Your task to perform on an android device: Go to Reddit.com Image 0: 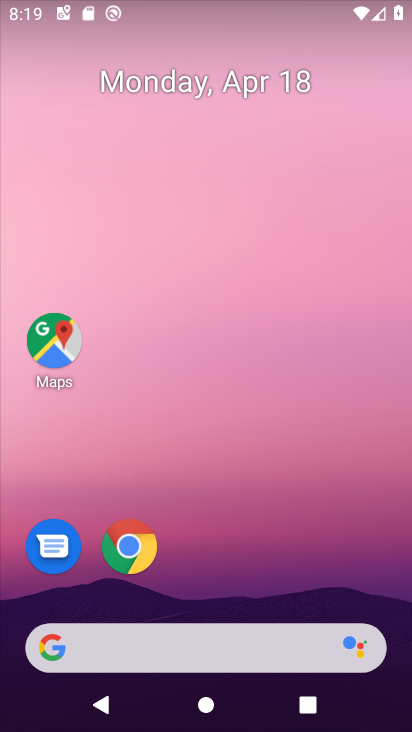
Step 0: drag from (347, 583) to (200, 142)
Your task to perform on an android device: Go to Reddit.com Image 1: 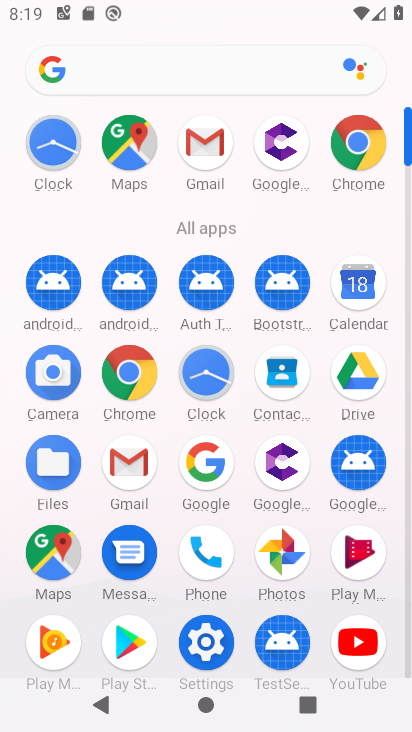
Step 1: click (364, 157)
Your task to perform on an android device: Go to Reddit.com Image 2: 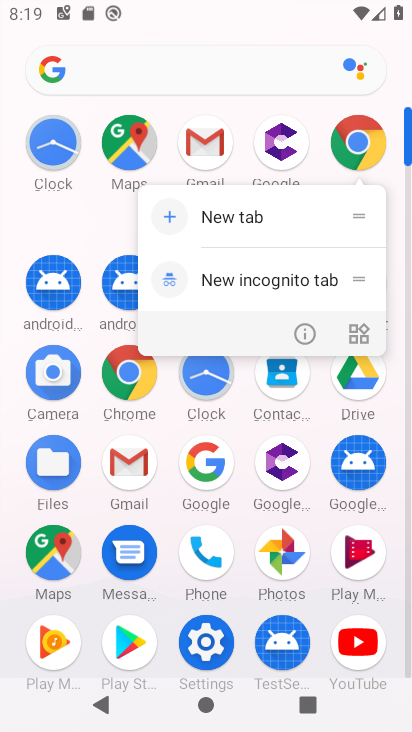
Step 2: click (364, 157)
Your task to perform on an android device: Go to Reddit.com Image 3: 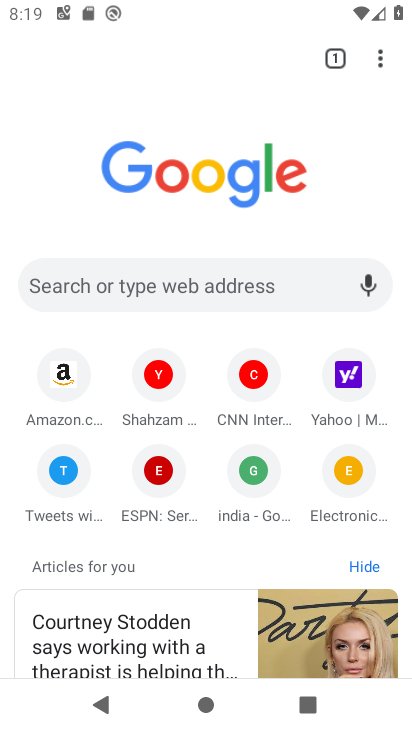
Step 3: click (250, 278)
Your task to perform on an android device: Go to Reddit.com Image 4: 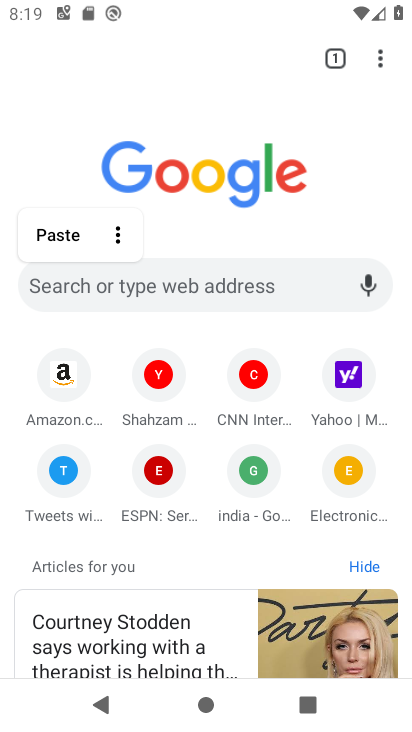
Step 4: type "Reddit.com"
Your task to perform on an android device: Go to Reddit.com Image 5: 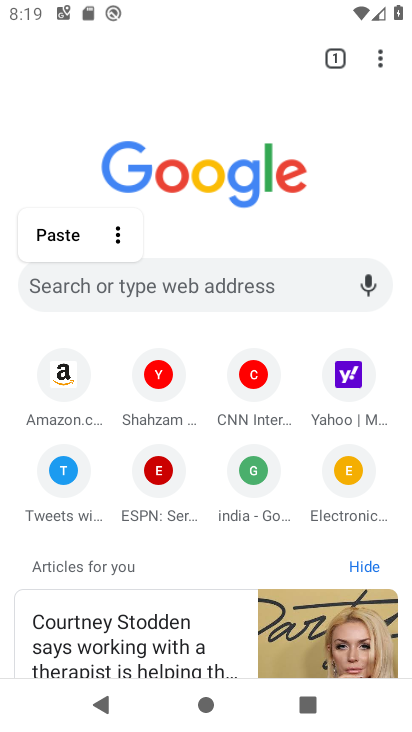
Step 5: click (232, 283)
Your task to perform on an android device: Go to Reddit.com Image 6: 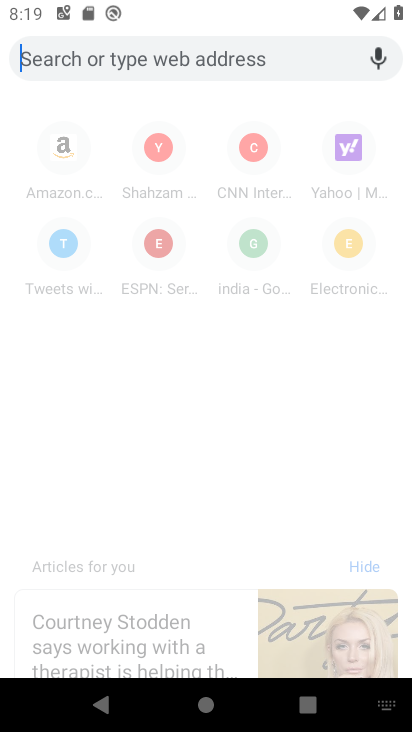
Step 6: type "Reddit.com"
Your task to perform on an android device: Go to Reddit.com Image 7: 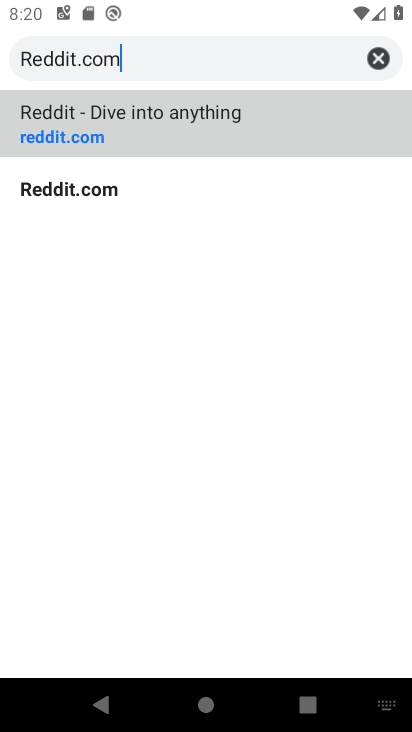
Step 7: click (279, 148)
Your task to perform on an android device: Go to Reddit.com Image 8: 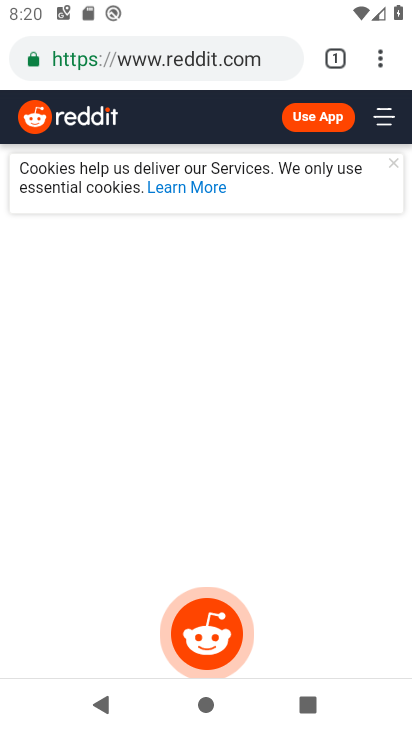
Step 8: task complete